Your task to perform on an android device: star an email in the gmail app Image 0: 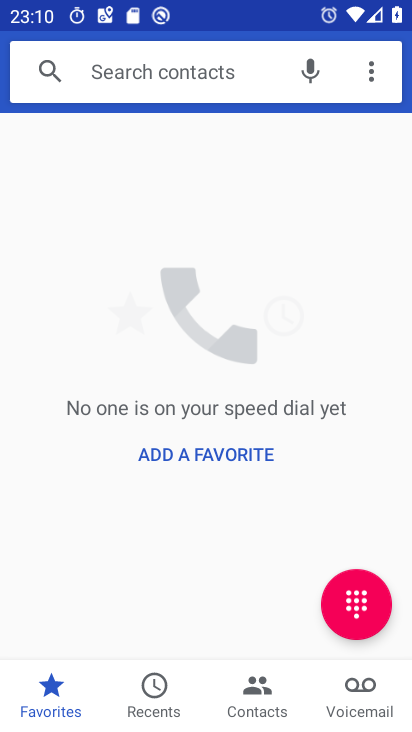
Step 0: press home button
Your task to perform on an android device: star an email in the gmail app Image 1: 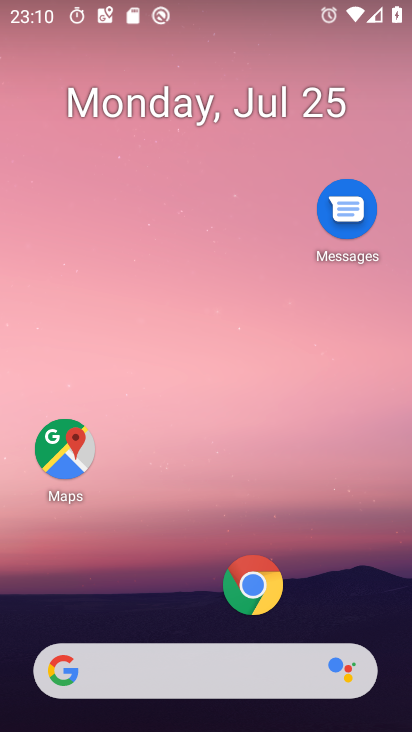
Step 1: drag from (154, 684) to (278, 171)
Your task to perform on an android device: star an email in the gmail app Image 2: 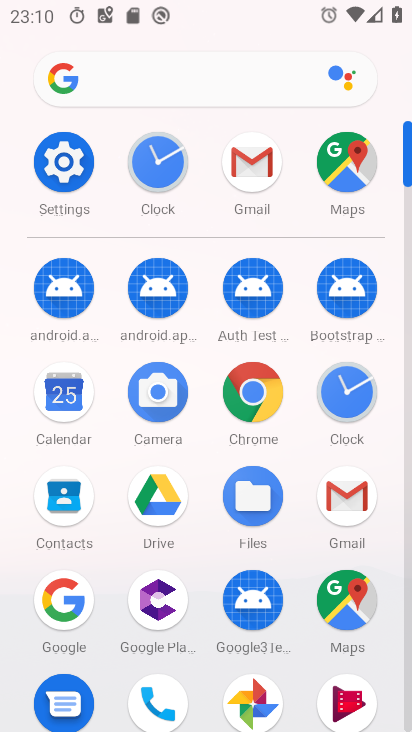
Step 2: click (253, 174)
Your task to perform on an android device: star an email in the gmail app Image 3: 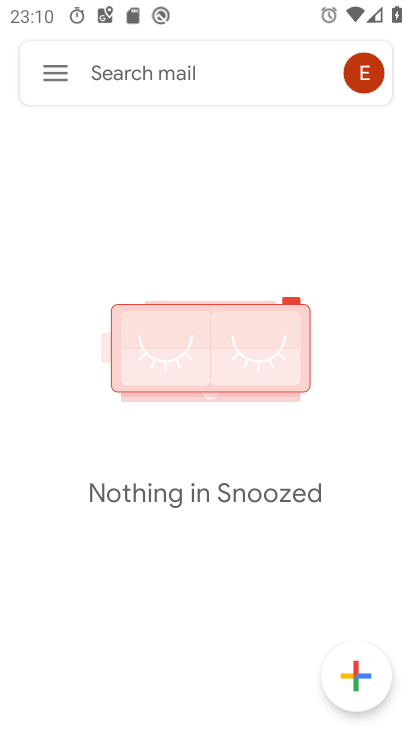
Step 3: click (57, 73)
Your task to perform on an android device: star an email in the gmail app Image 4: 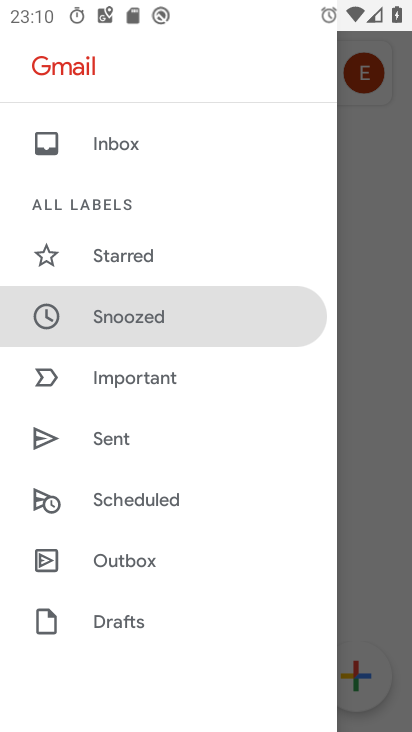
Step 4: drag from (179, 565) to (262, 226)
Your task to perform on an android device: star an email in the gmail app Image 5: 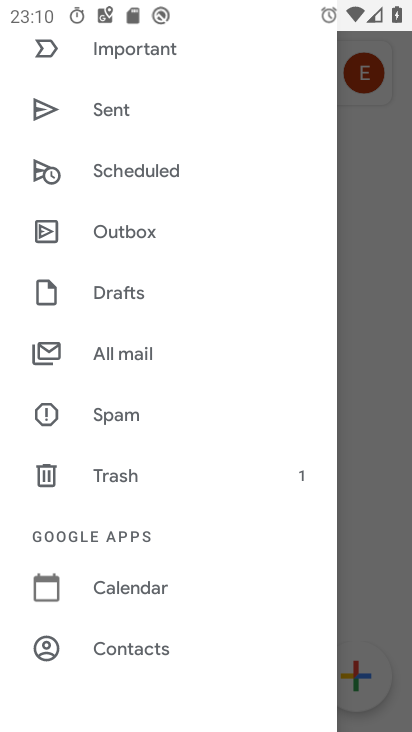
Step 5: click (163, 359)
Your task to perform on an android device: star an email in the gmail app Image 6: 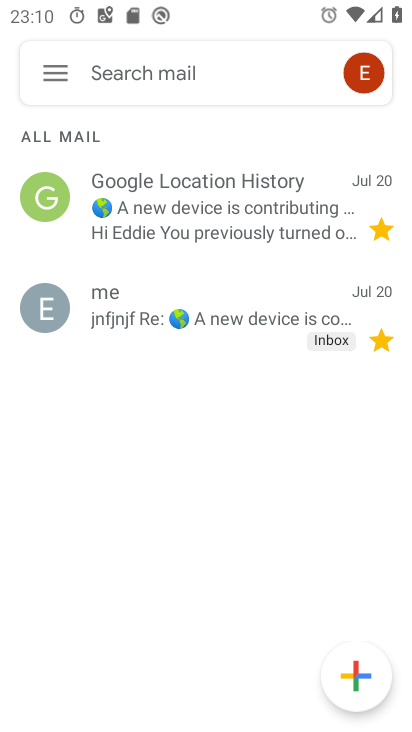
Step 6: task complete